Your task to perform on an android device: turn off airplane mode Image 0: 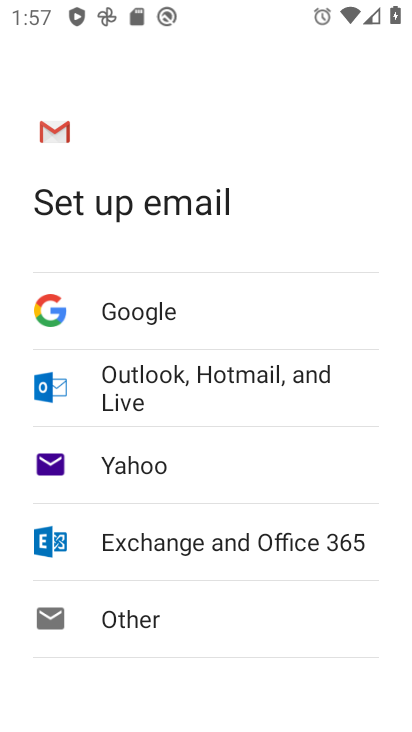
Step 0: press home button
Your task to perform on an android device: turn off airplane mode Image 1: 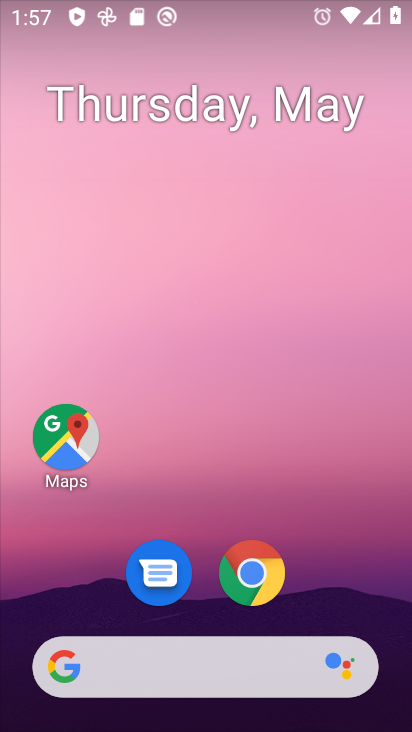
Step 1: drag from (399, 677) to (410, 312)
Your task to perform on an android device: turn off airplane mode Image 2: 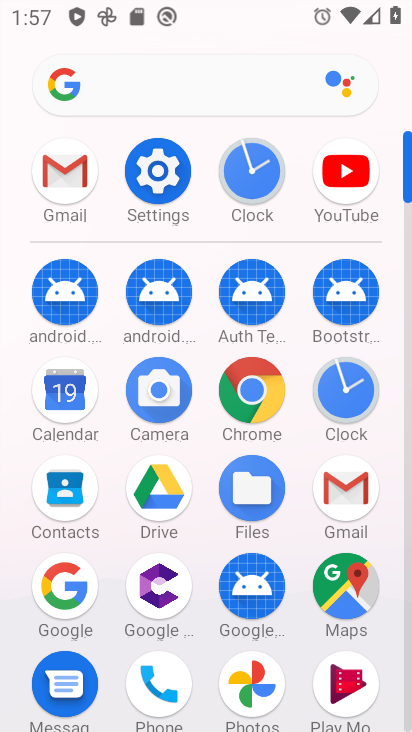
Step 2: click (172, 175)
Your task to perform on an android device: turn off airplane mode Image 3: 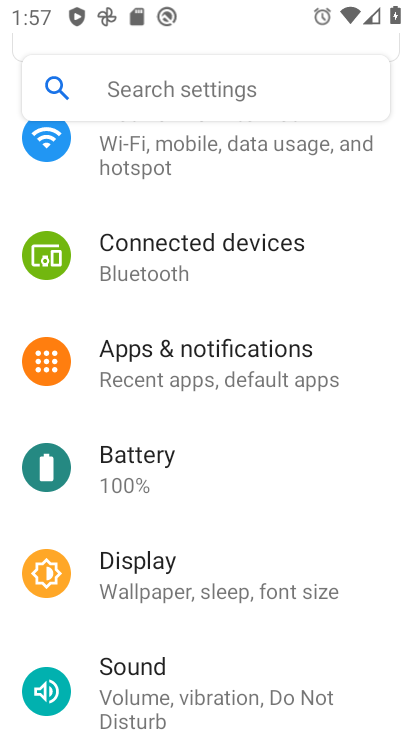
Step 3: click (163, 145)
Your task to perform on an android device: turn off airplane mode Image 4: 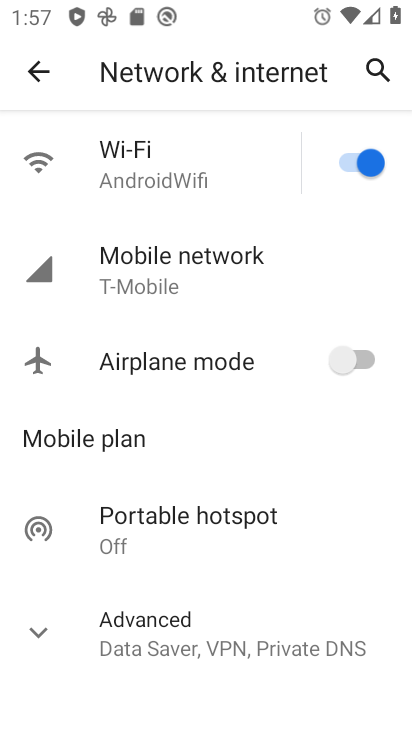
Step 4: task complete